Your task to perform on an android device: Open Yahoo.com Image 0: 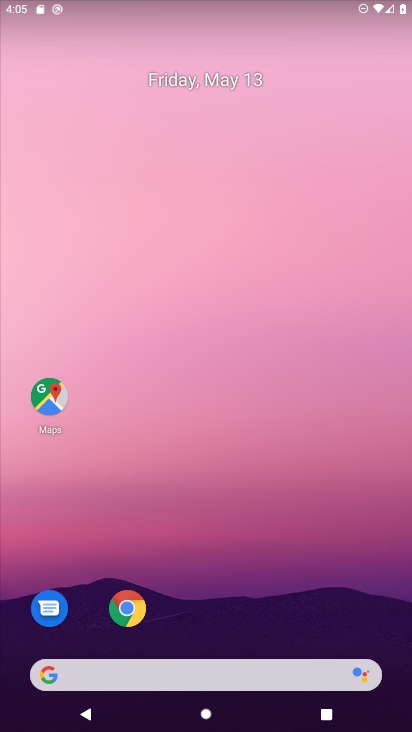
Step 0: drag from (299, 612) to (174, 21)
Your task to perform on an android device: Open Yahoo.com Image 1: 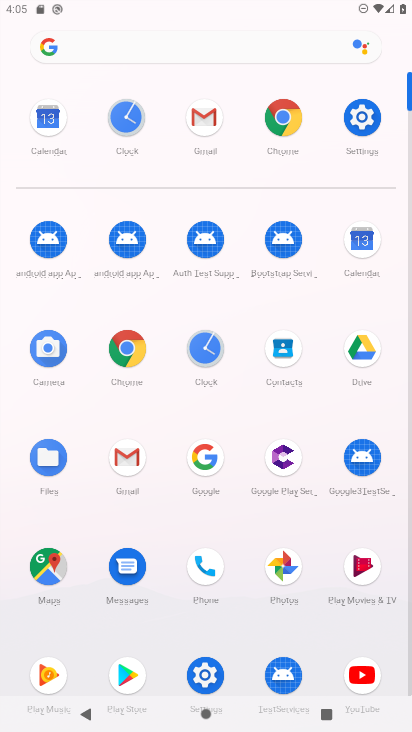
Step 1: click (119, 356)
Your task to perform on an android device: Open Yahoo.com Image 2: 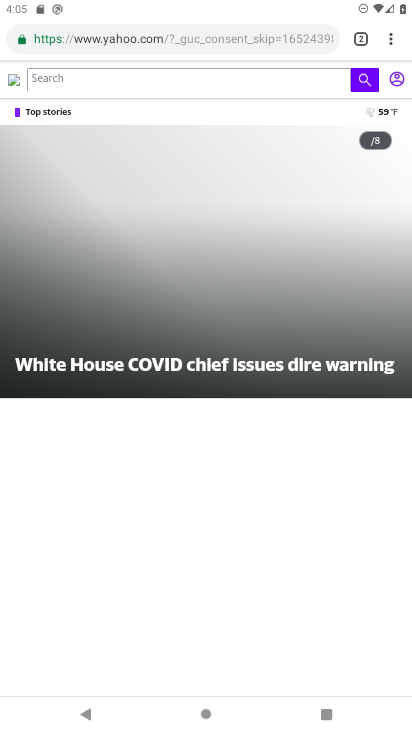
Step 2: click (245, 41)
Your task to perform on an android device: Open Yahoo.com Image 3: 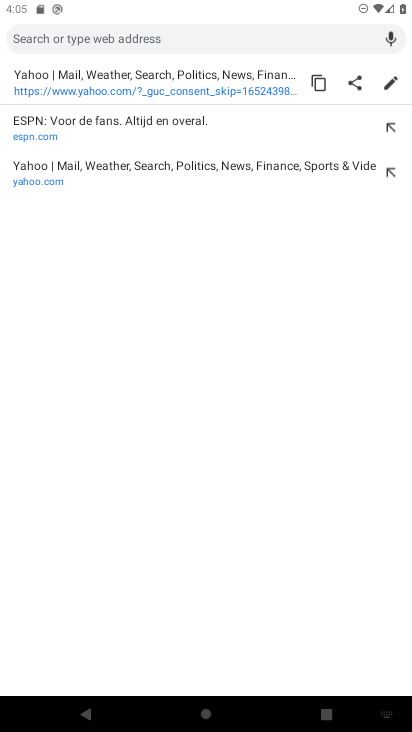
Step 3: type "yahoo.com"
Your task to perform on an android device: Open Yahoo.com Image 4: 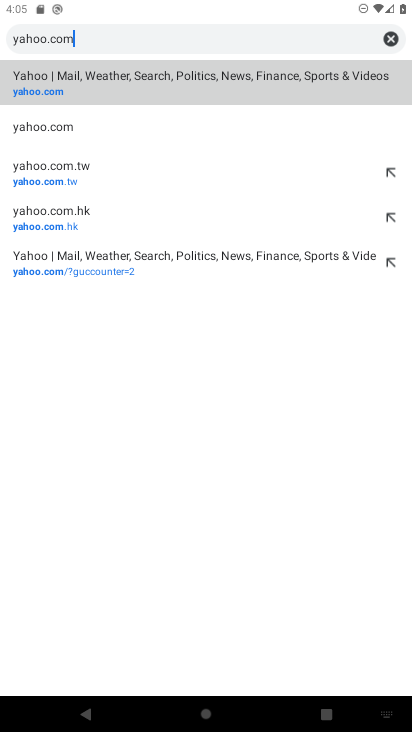
Step 4: click (128, 76)
Your task to perform on an android device: Open Yahoo.com Image 5: 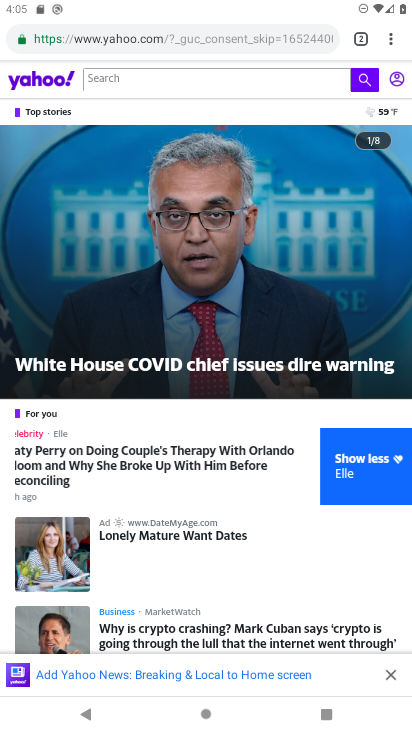
Step 5: task complete